Your task to perform on an android device: change notification settings in the gmail app Image 0: 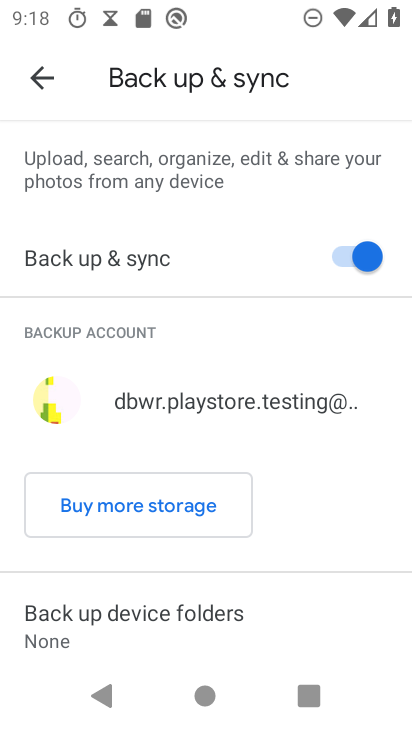
Step 0: press home button
Your task to perform on an android device: change notification settings in the gmail app Image 1: 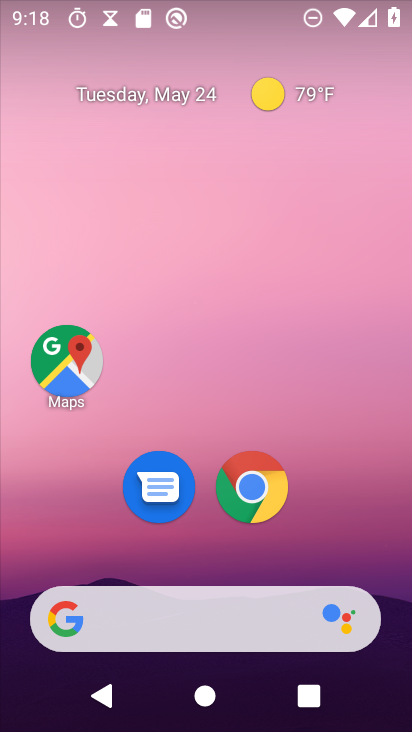
Step 1: click (252, 75)
Your task to perform on an android device: change notification settings in the gmail app Image 2: 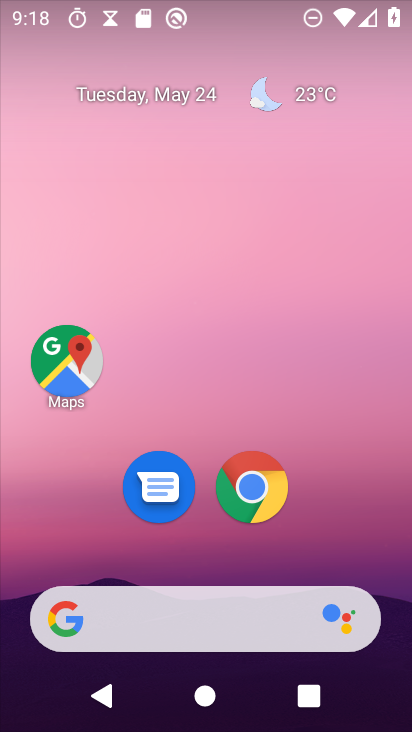
Step 2: drag from (79, 470) to (316, 52)
Your task to perform on an android device: change notification settings in the gmail app Image 3: 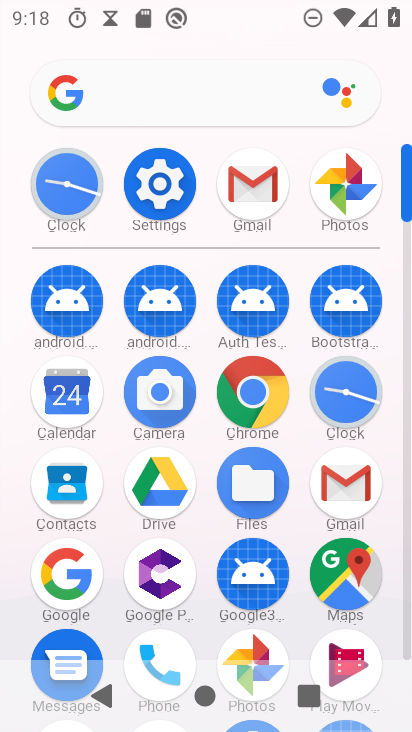
Step 3: click (351, 477)
Your task to perform on an android device: change notification settings in the gmail app Image 4: 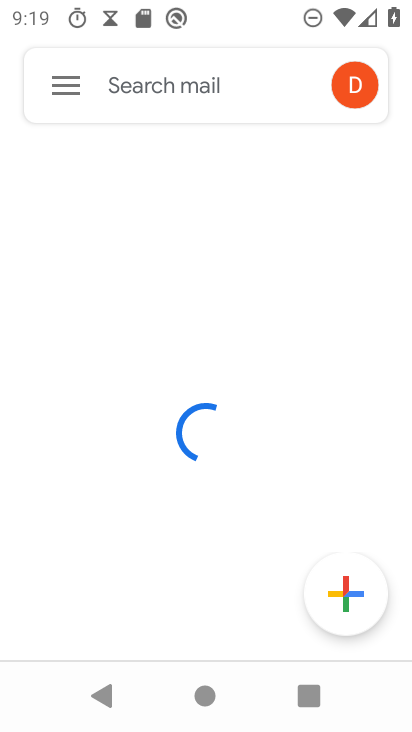
Step 4: click (63, 79)
Your task to perform on an android device: change notification settings in the gmail app Image 5: 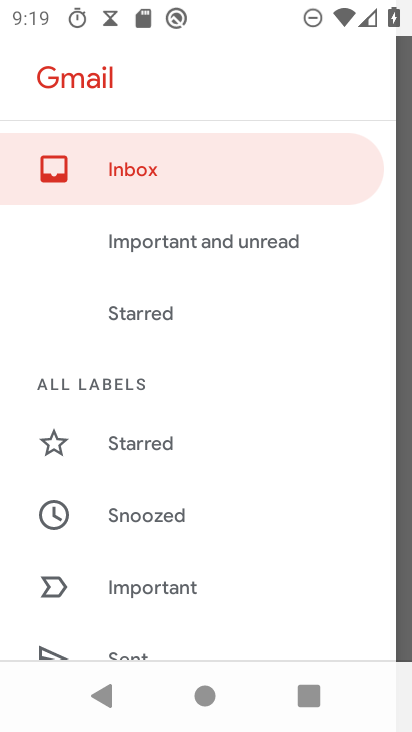
Step 5: drag from (107, 605) to (317, 93)
Your task to perform on an android device: change notification settings in the gmail app Image 6: 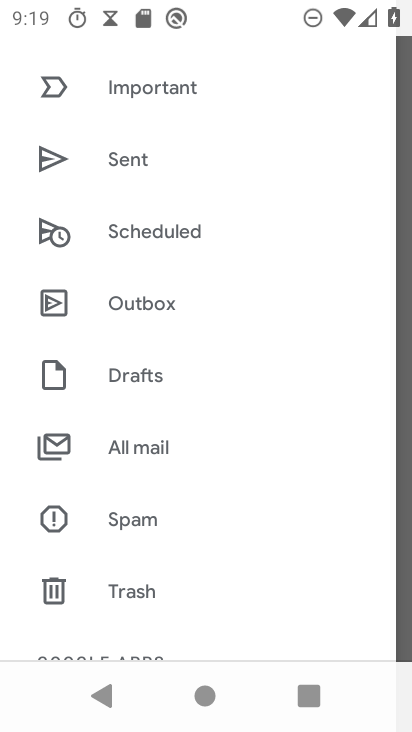
Step 6: drag from (99, 587) to (275, 98)
Your task to perform on an android device: change notification settings in the gmail app Image 7: 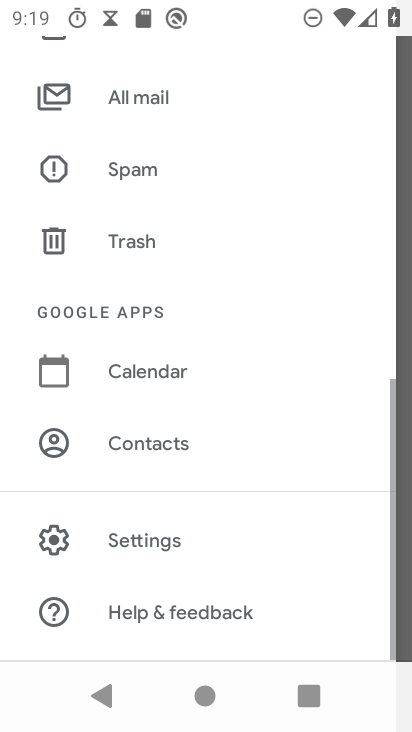
Step 7: click (147, 548)
Your task to perform on an android device: change notification settings in the gmail app Image 8: 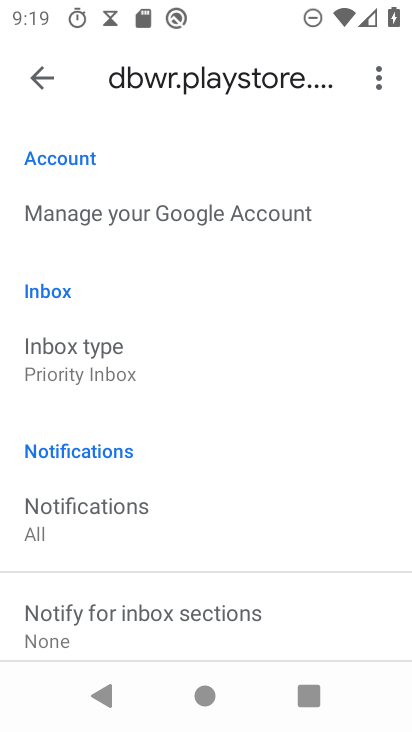
Step 8: drag from (22, 505) to (228, 122)
Your task to perform on an android device: change notification settings in the gmail app Image 9: 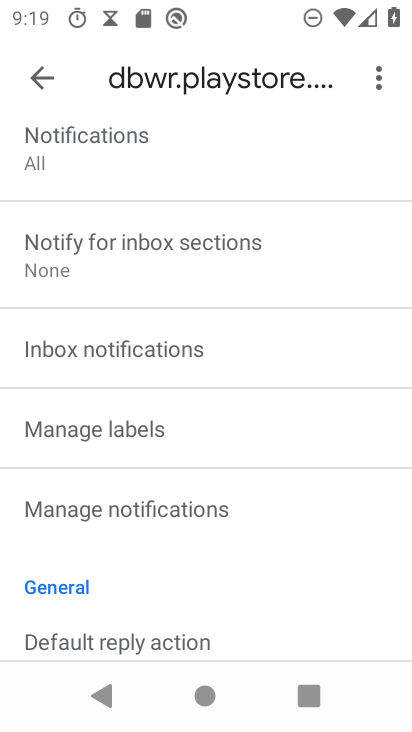
Step 9: click (192, 510)
Your task to perform on an android device: change notification settings in the gmail app Image 10: 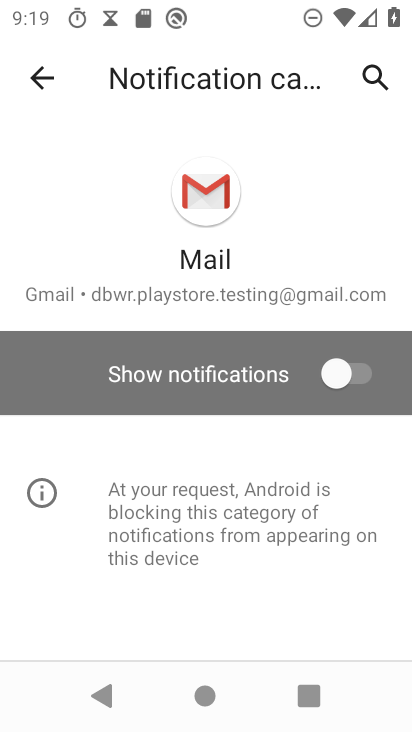
Step 10: click (327, 384)
Your task to perform on an android device: change notification settings in the gmail app Image 11: 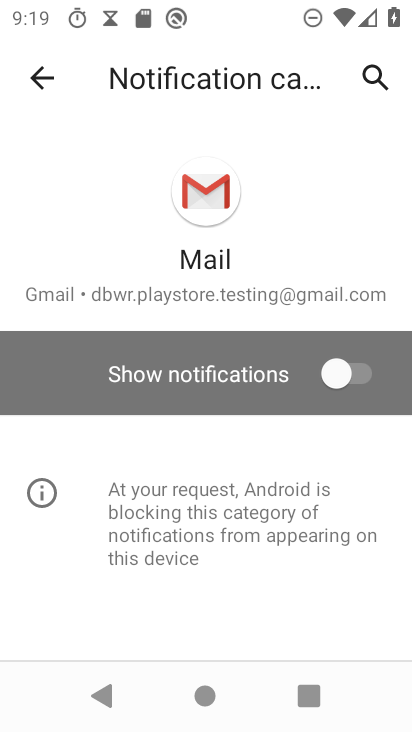
Step 11: task complete